Your task to perform on an android device: turn on translation in the chrome app Image 0: 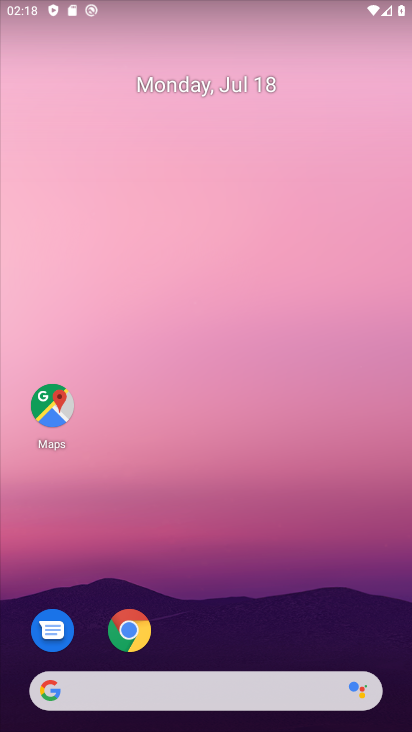
Step 0: click (124, 636)
Your task to perform on an android device: turn on translation in the chrome app Image 1: 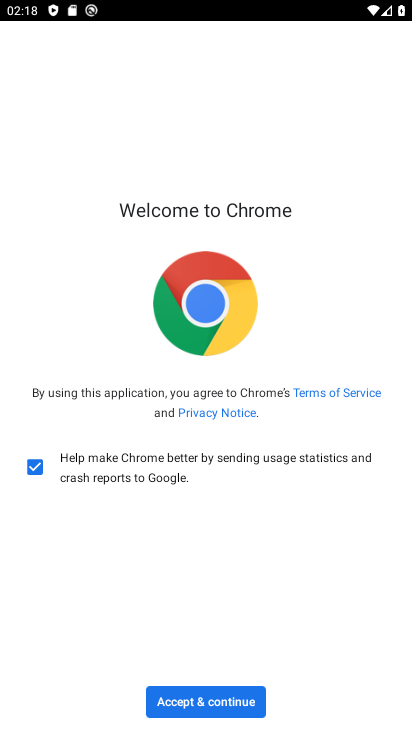
Step 1: click (244, 702)
Your task to perform on an android device: turn on translation in the chrome app Image 2: 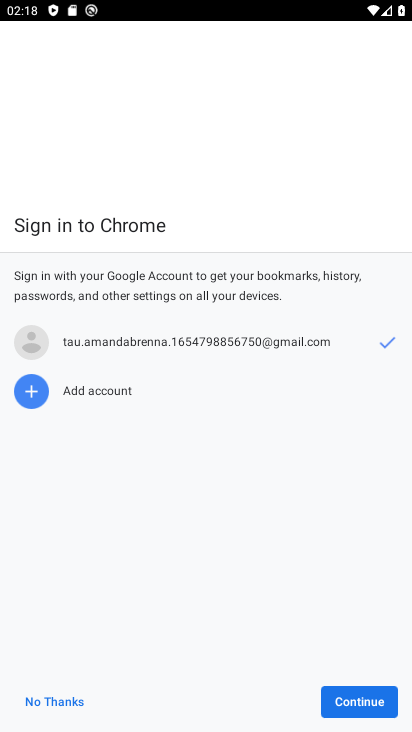
Step 2: click (363, 685)
Your task to perform on an android device: turn on translation in the chrome app Image 3: 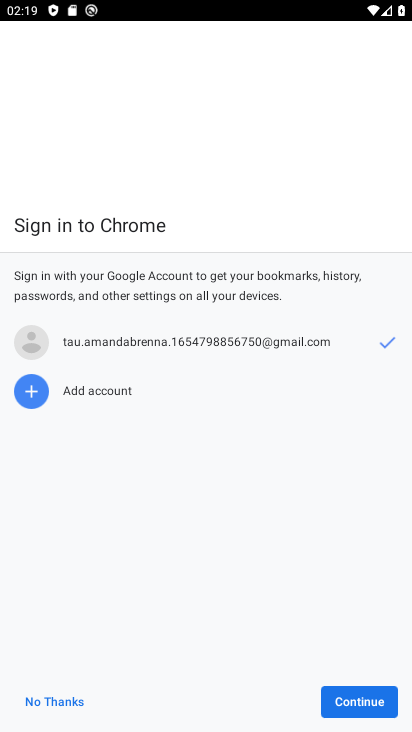
Step 3: click (368, 706)
Your task to perform on an android device: turn on translation in the chrome app Image 4: 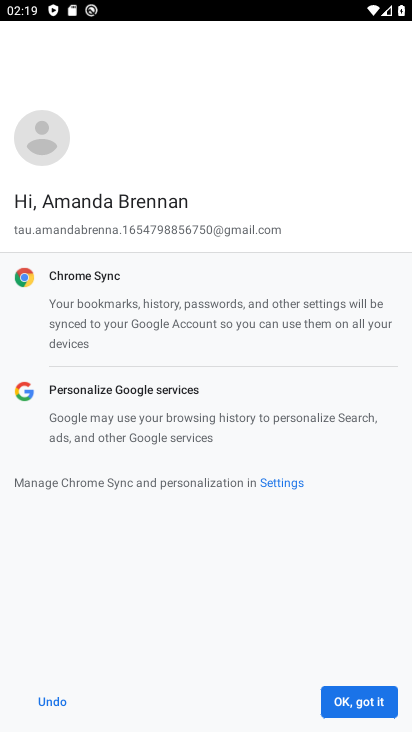
Step 4: click (368, 706)
Your task to perform on an android device: turn on translation in the chrome app Image 5: 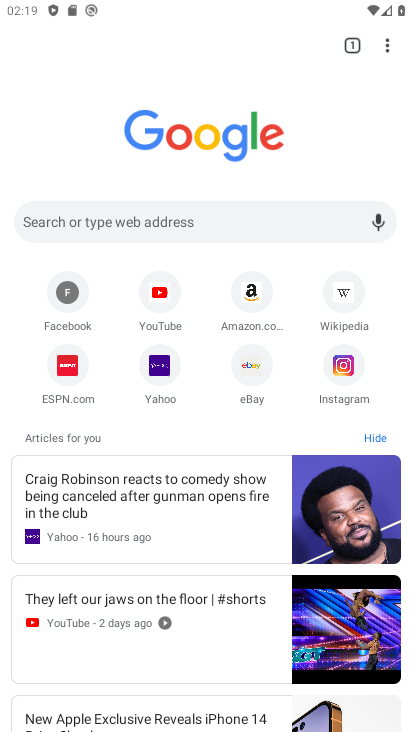
Step 5: click (399, 41)
Your task to perform on an android device: turn on translation in the chrome app Image 6: 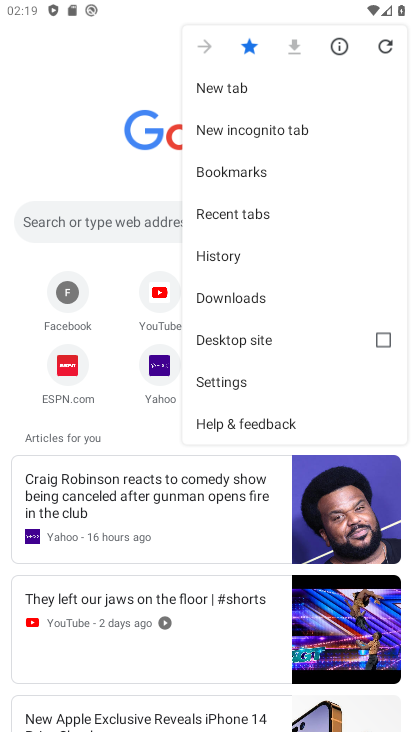
Step 6: click (275, 399)
Your task to perform on an android device: turn on translation in the chrome app Image 7: 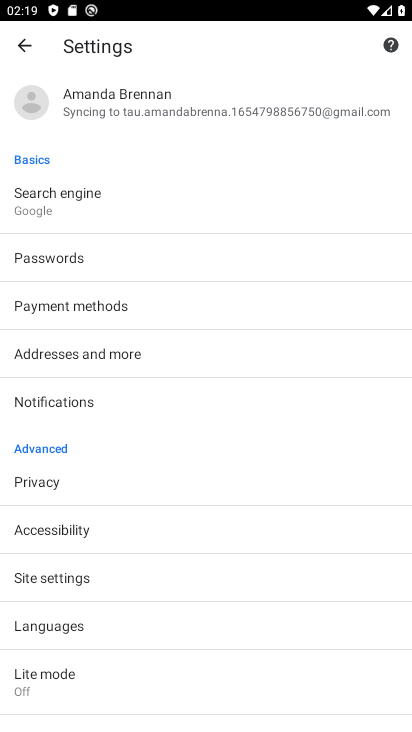
Step 7: click (82, 622)
Your task to perform on an android device: turn on translation in the chrome app Image 8: 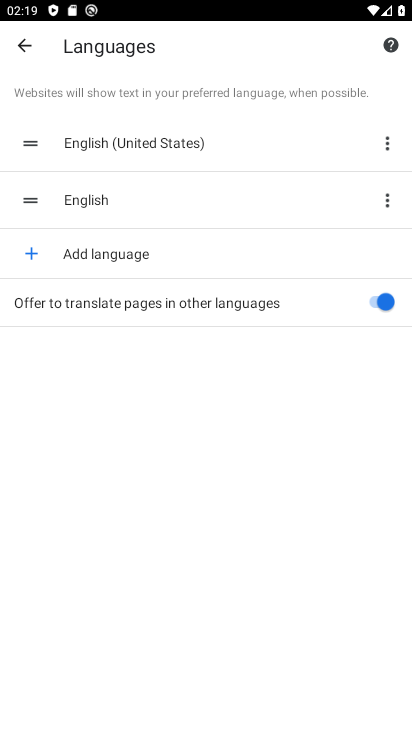
Step 8: task complete